Your task to perform on an android device: Open calendar and show me the second week of next month Image 0: 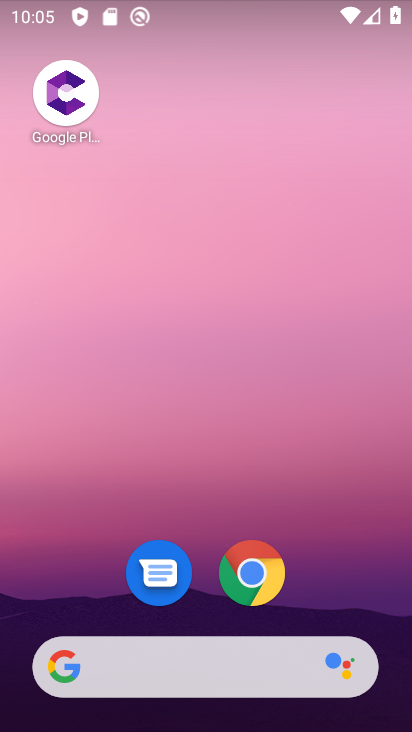
Step 0: drag from (77, 611) to (160, 133)
Your task to perform on an android device: Open calendar and show me the second week of next month Image 1: 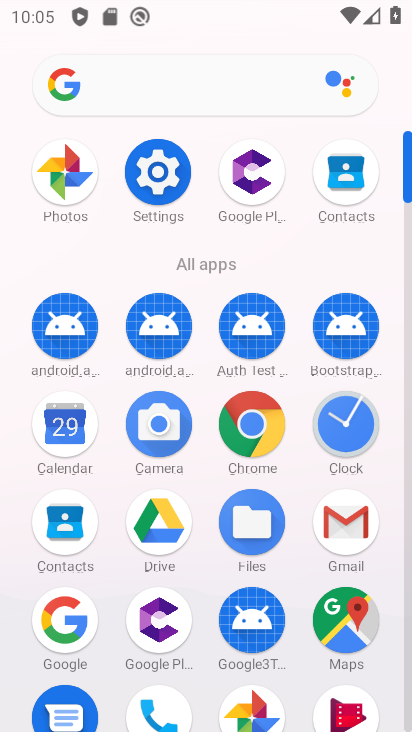
Step 1: click (60, 416)
Your task to perform on an android device: Open calendar and show me the second week of next month Image 2: 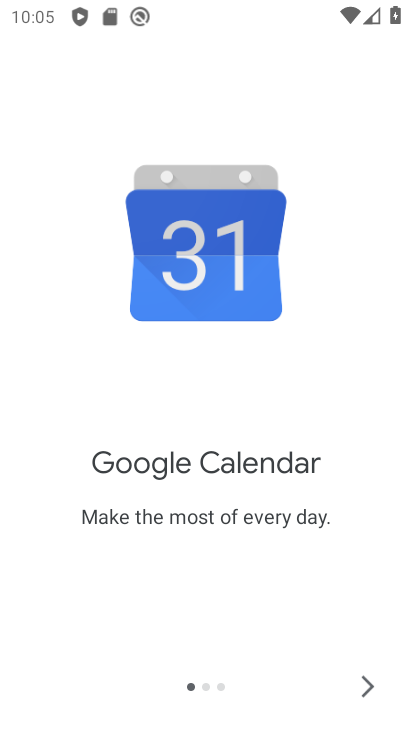
Step 2: click (368, 685)
Your task to perform on an android device: Open calendar and show me the second week of next month Image 3: 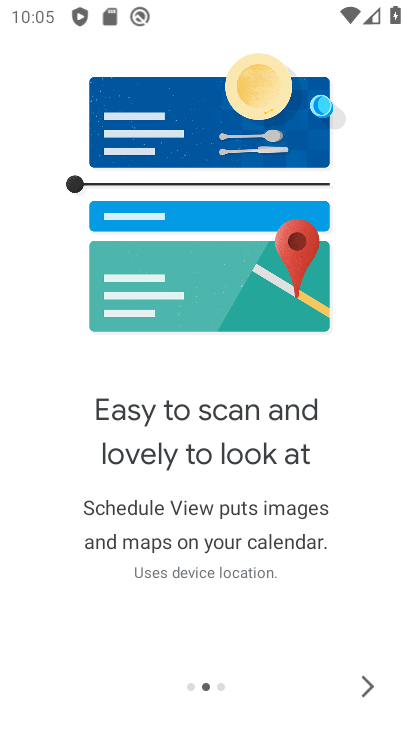
Step 3: click (369, 685)
Your task to perform on an android device: Open calendar and show me the second week of next month Image 4: 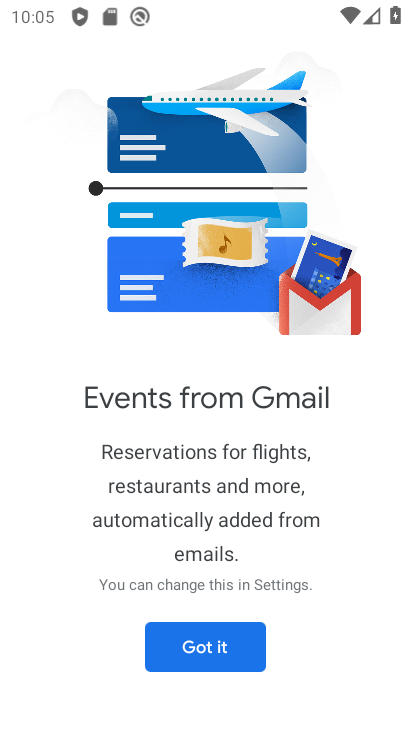
Step 4: click (253, 665)
Your task to perform on an android device: Open calendar and show me the second week of next month Image 5: 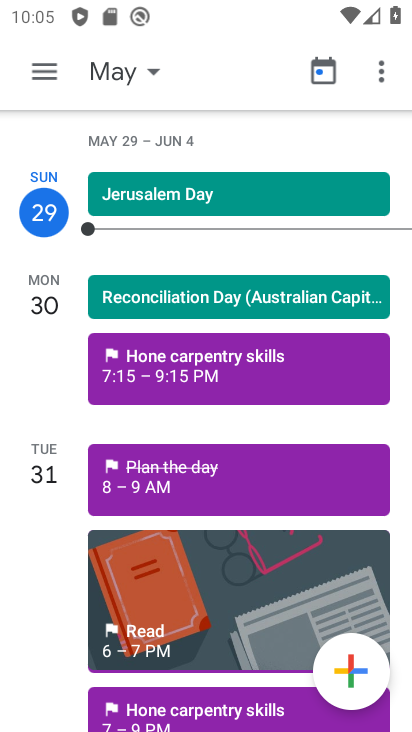
Step 5: click (54, 87)
Your task to perform on an android device: Open calendar and show me the second week of next month Image 6: 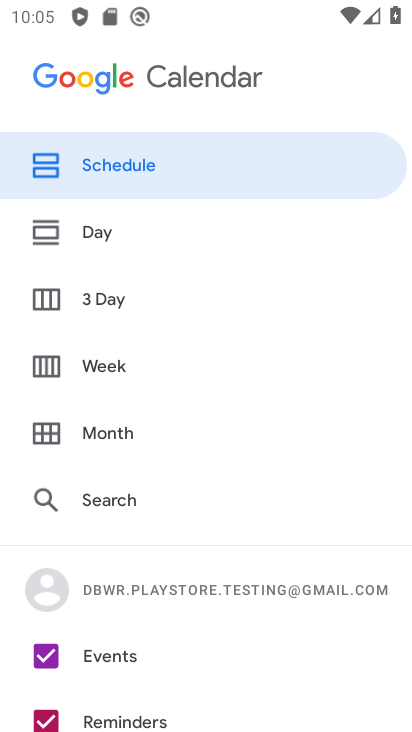
Step 6: click (99, 371)
Your task to perform on an android device: Open calendar and show me the second week of next month Image 7: 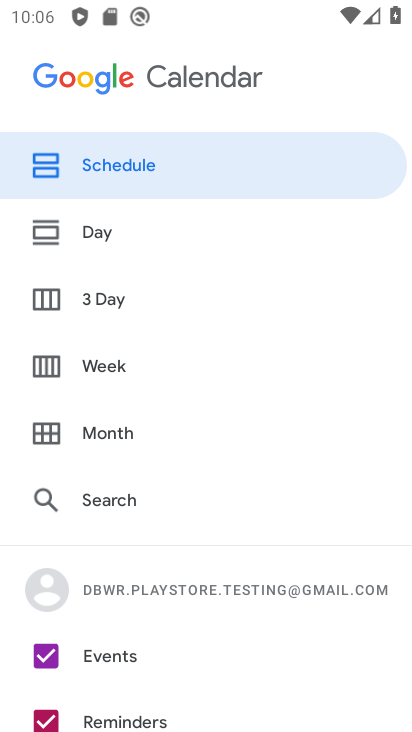
Step 7: click (182, 376)
Your task to perform on an android device: Open calendar and show me the second week of next month Image 8: 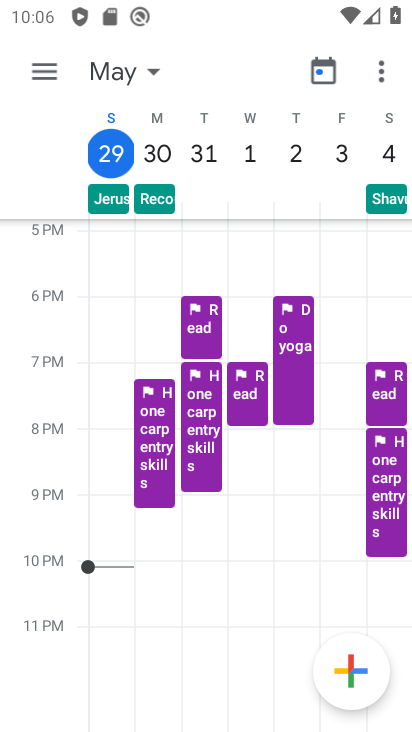
Step 8: click (131, 64)
Your task to perform on an android device: Open calendar and show me the second week of next month Image 9: 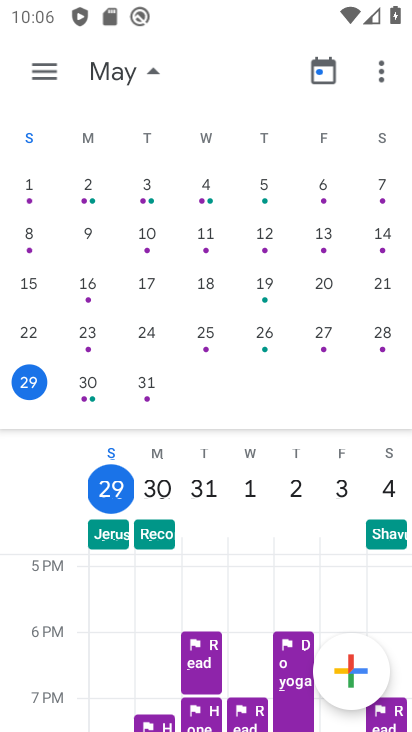
Step 9: drag from (379, 319) to (15, 277)
Your task to perform on an android device: Open calendar and show me the second week of next month Image 10: 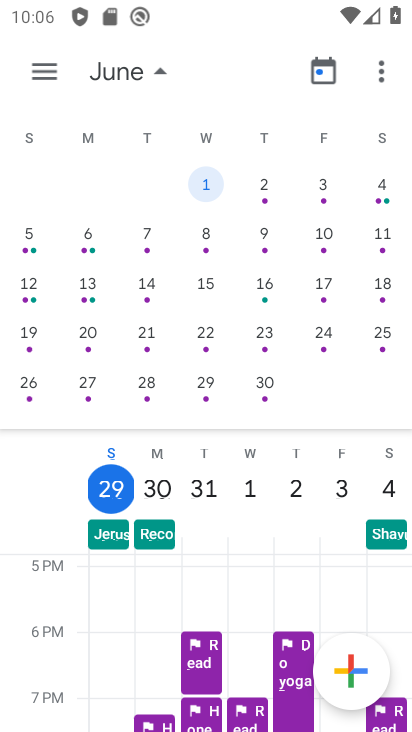
Step 10: click (34, 288)
Your task to perform on an android device: Open calendar and show me the second week of next month Image 11: 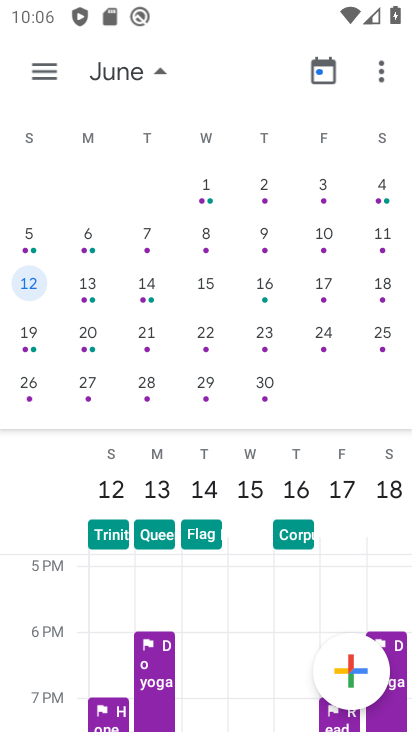
Step 11: click (136, 69)
Your task to perform on an android device: Open calendar and show me the second week of next month Image 12: 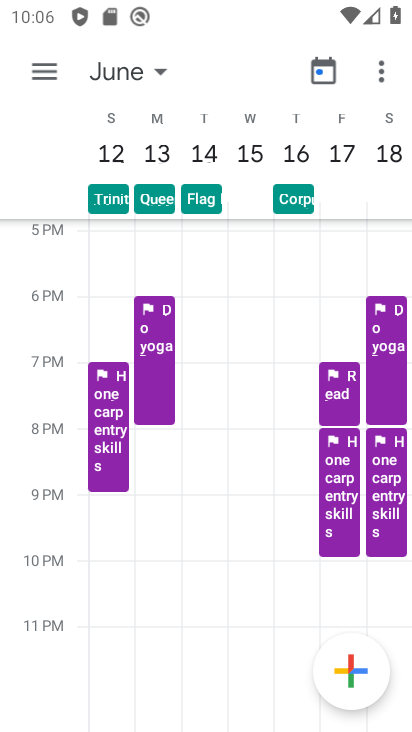
Step 12: task complete